Your task to perform on an android device: turn off priority inbox in the gmail app Image 0: 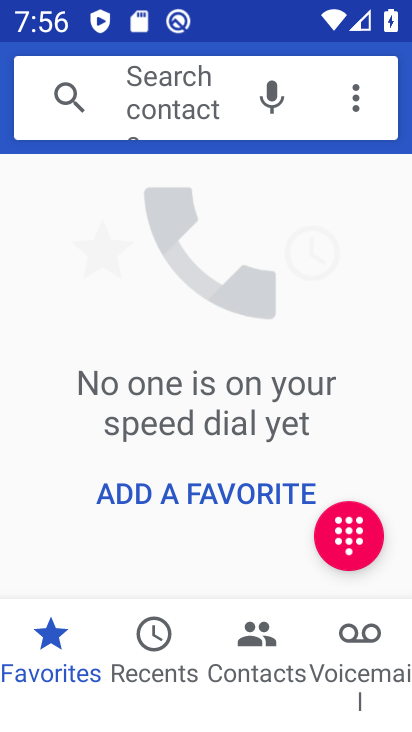
Step 0: press home button
Your task to perform on an android device: turn off priority inbox in the gmail app Image 1: 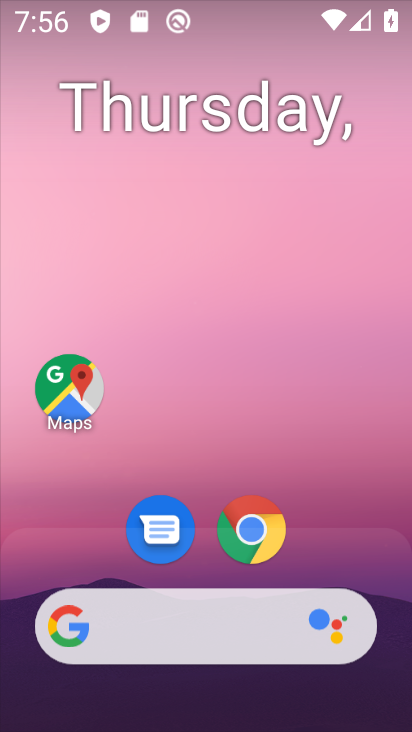
Step 1: drag from (215, 421) to (223, 114)
Your task to perform on an android device: turn off priority inbox in the gmail app Image 2: 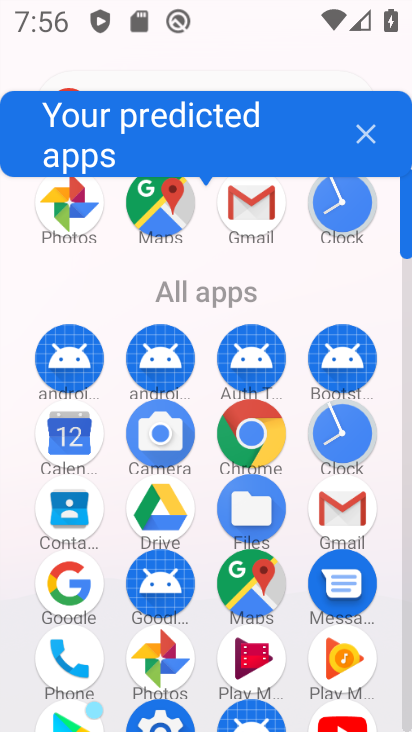
Step 2: click (254, 204)
Your task to perform on an android device: turn off priority inbox in the gmail app Image 3: 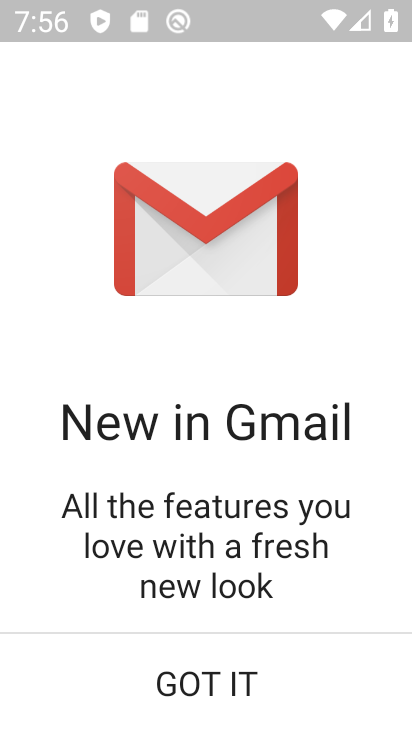
Step 3: click (204, 684)
Your task to perform on an android device: turn off priority inbox in the gmail app Image 4: 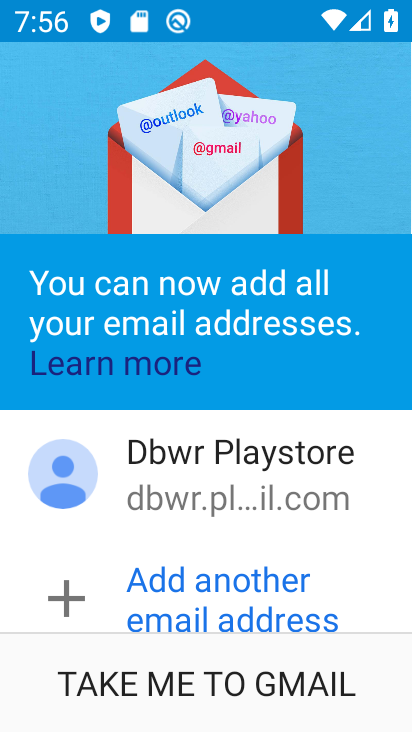
Step 4: click (183, 680)
Your task to perform on an android device: turn off priority inbox in the gmail app Image 5: 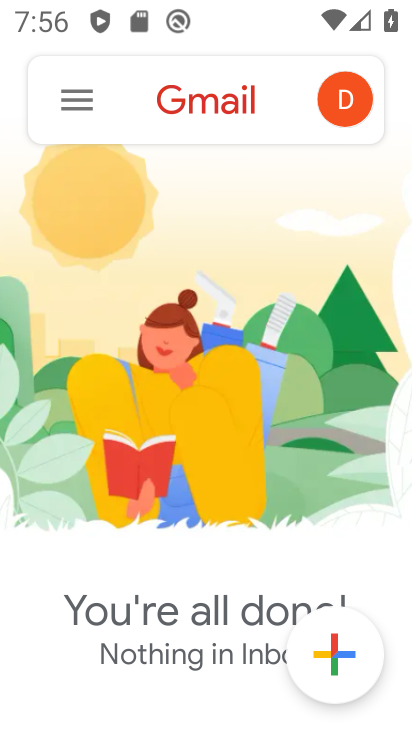
Step 5: click (81, 103)
Your task to perform on an android device: turn off priority inbox in the gmail app Image 6: 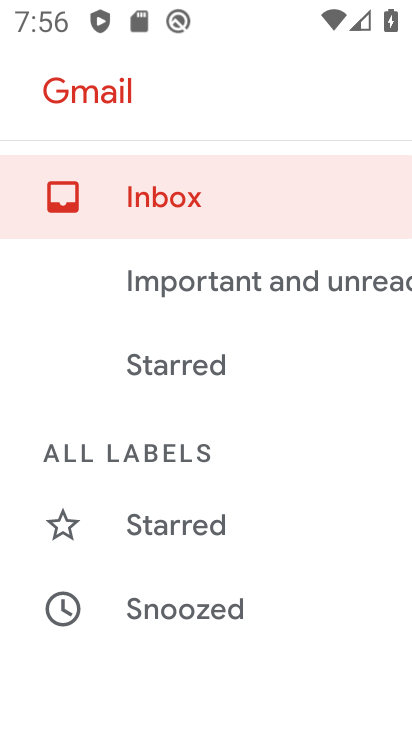
Step 6: drag from (213, 574) to (233, 9)
Your task to perform on an android device: turn off priority inbox in the gmail app Image 7: 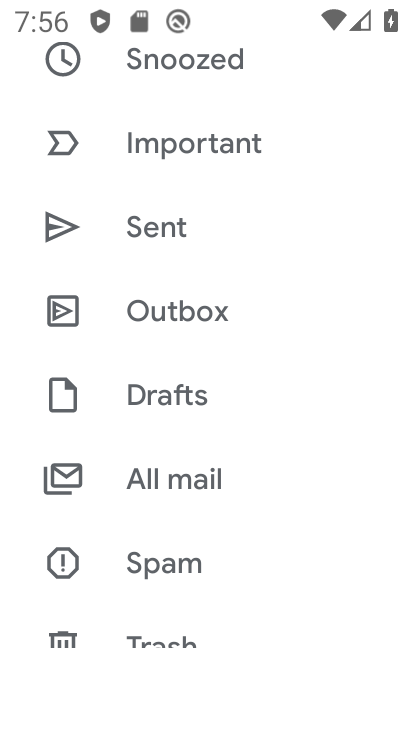
Step 7: drag from (207, 531) to (182, 13)
Your task to perform on an android device: turn off priority inbox in the gmail app Image 8: 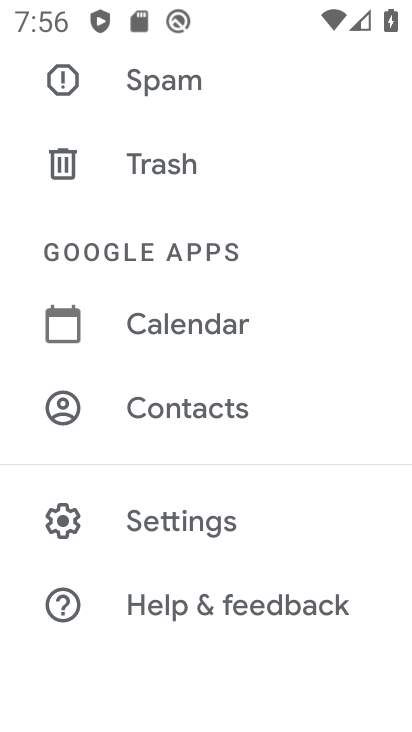
Step 8: click (166, 503)
Your task to perform on an android device: turn off priority inbox in the gmail app Image 9: 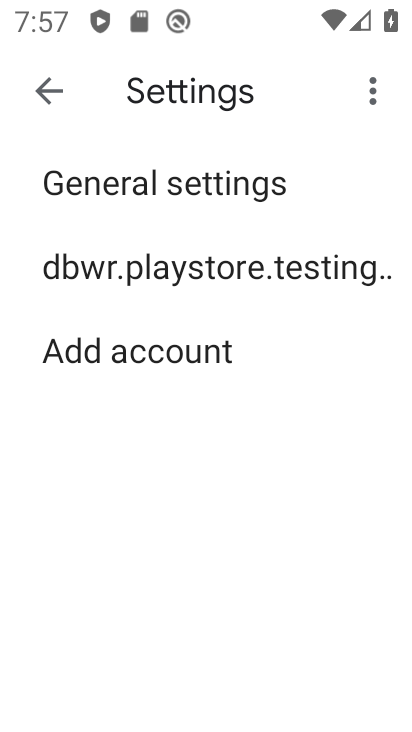
Step 9: click (185, 271)
Your task to perform on an android device: turn off priority inbox in the gmail app Image 10: 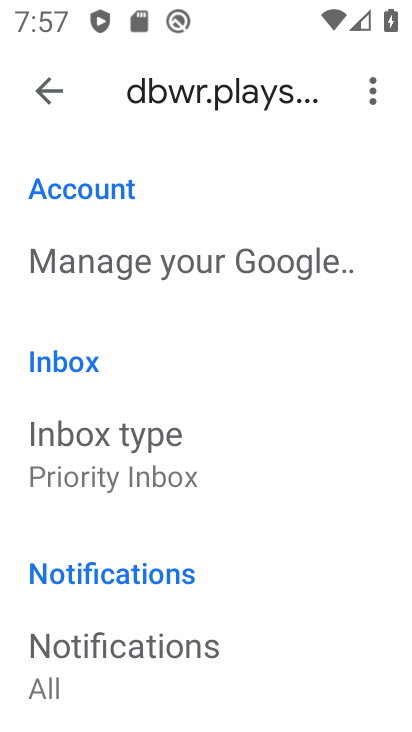
Step 10: click (156, 464)
Your task to perform on an android device: turn off priority inbox in the gmail app Image 11: 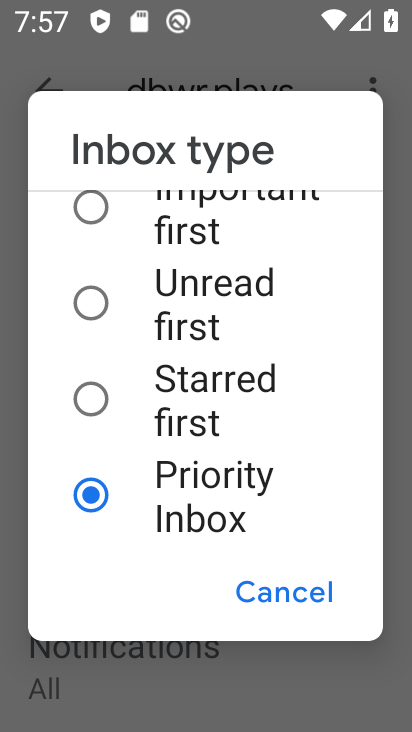
Step 11: click (96, 209)
Your task to perform on an android device: turn off priority inbox in the gmail app Image 12: 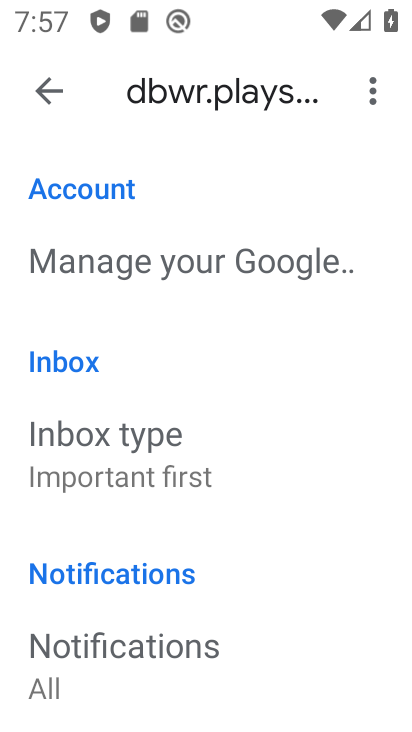
Step 12: task complete